Your task to perform on an android device: Search for vegetarian restaurants on Maps Image 0: 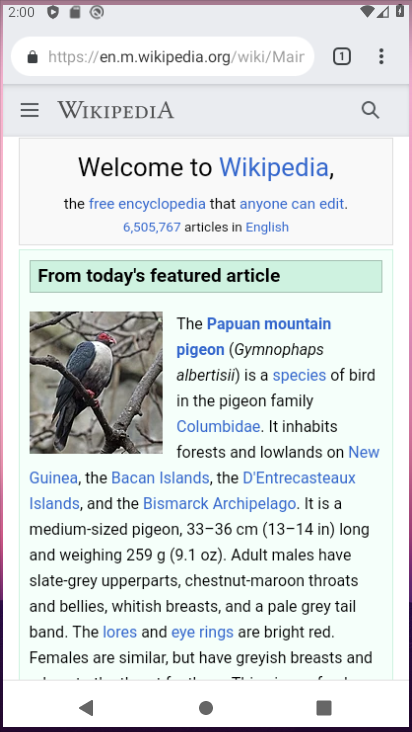
Step 0: drag from (209, 587) to (290, 82)
Your task to perform on an android device: Search for vegetarian restaurants on Maps Image 1: 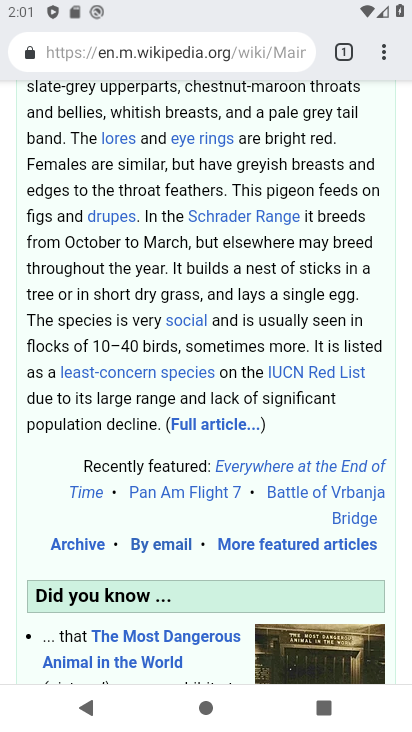
Step 1: press home button
Your task to perform on an android device: Search for vegetarian restaurants on Maps Image 2: 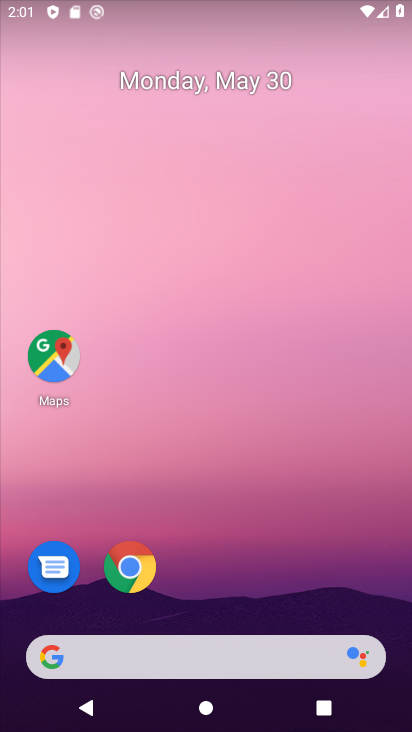
Step 2: click (56, 367)
Your task to perform on an android device: Search for vegetarian restaurants on Maps Image 3: 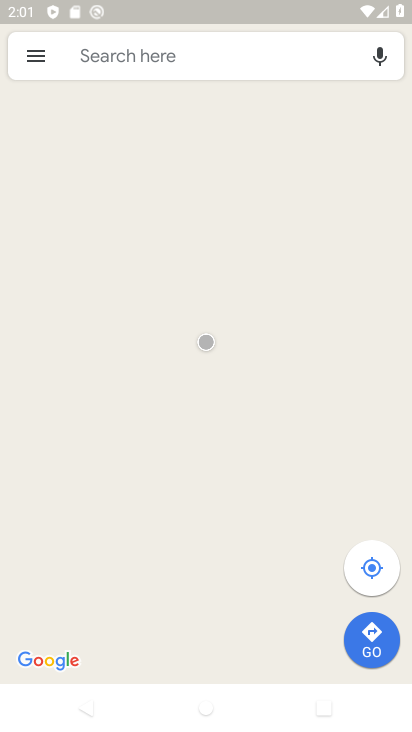
Step 3: click (177, 64)
Your task to perform on an android device: Search for vegetarian restaurants on Maps Image 4: 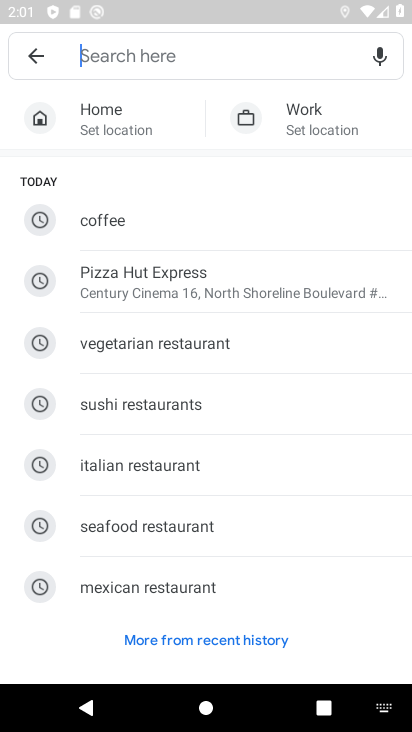
Step 4: type "vegetarian restraunts"
Your task to perform on an android device: Search for vegetarian restaurants on Maps Image 5: 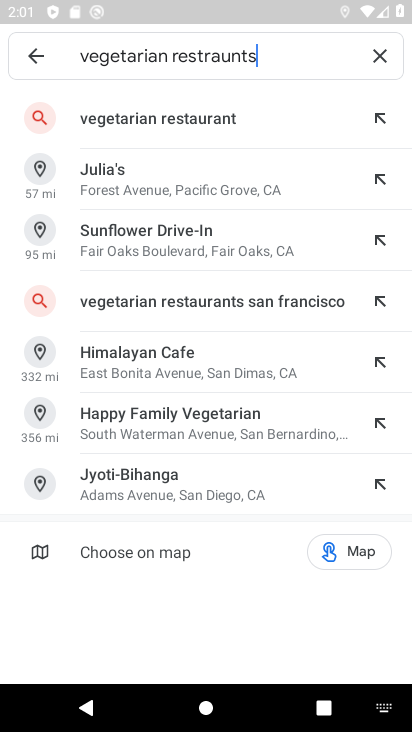
Step 5: click (188, 128)
Your task to perform on an android device: Search for vegetarian restaurants on Maps Image 6: 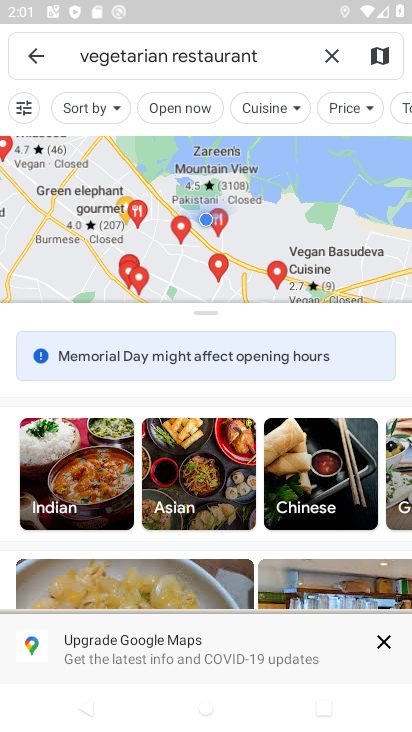
Step 6: task complete